Your task to perform on an android device: toggle notifications settings in the gmail app Image 0: 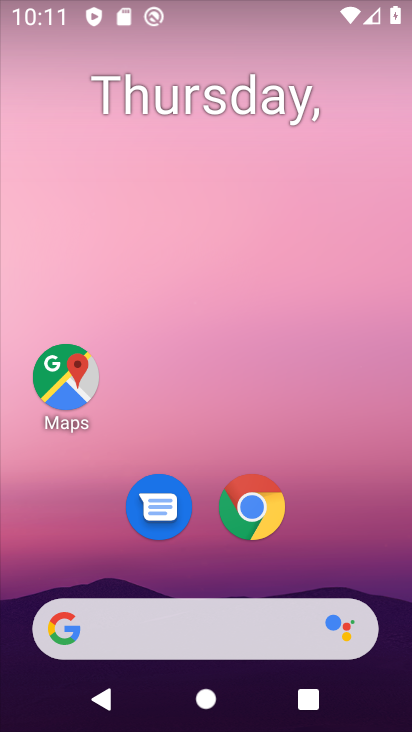
Step 0: drag from (309, 503) to (247, 18)
Your task to perform on an android device: toggle notifications settings in the gmail app Image 1: 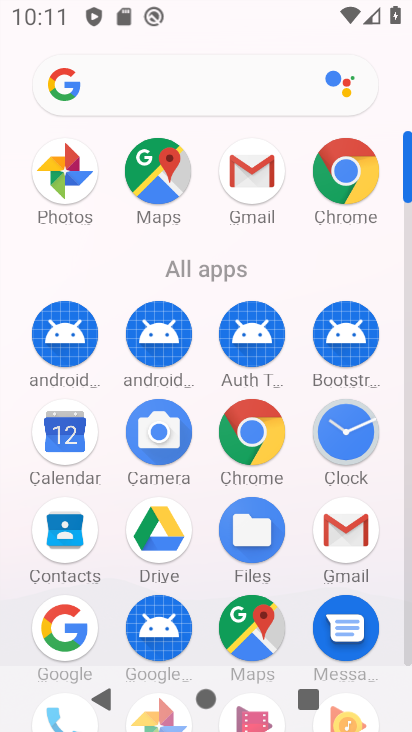
Step 1: click (339, 527)
Your task to perform on an android device: toggle notifications settings in the gmail app Image 2: 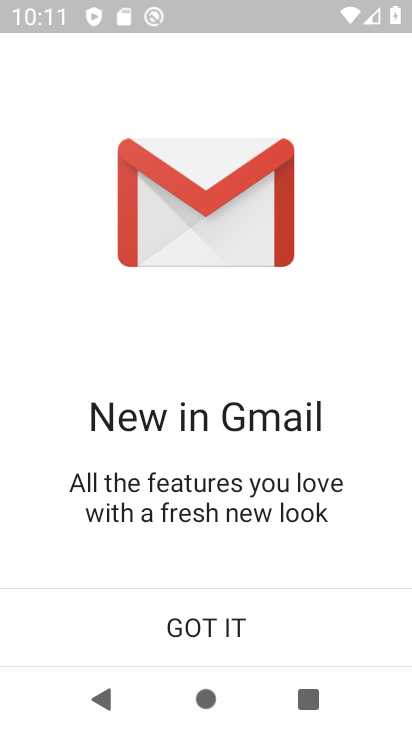
Step 2: click (240, 623)
Your task to perform on an android device: toggle notifications settings in the gmail app Image 3: 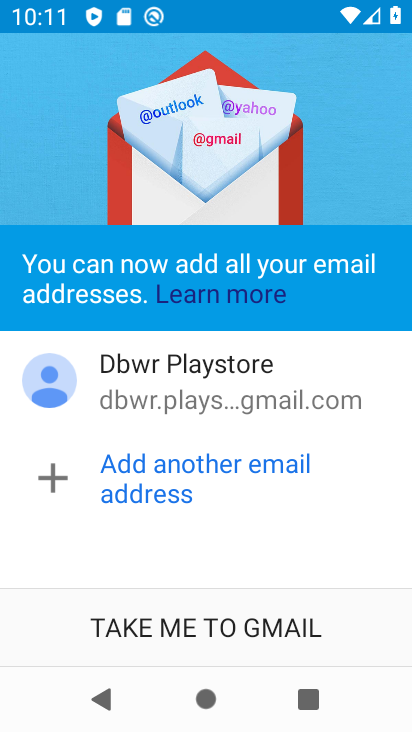
Step 3: click (189, 649)
Your task to perform on an android device: toggle notifications settings in the gmail app Image 4: 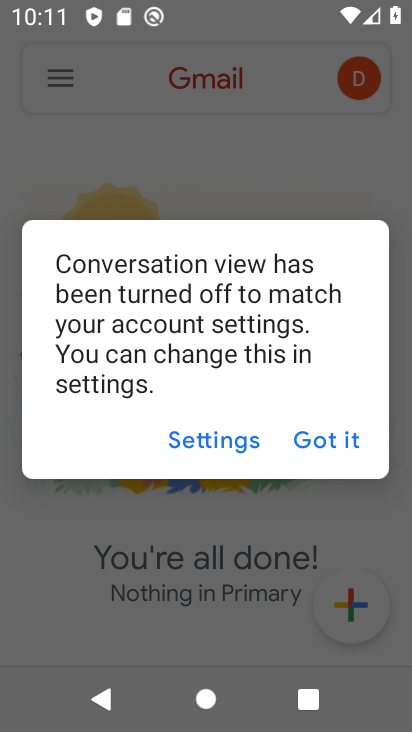
Step 4: click (315, 436)
Your task to perform on an android device: toggle notifications settings in the gmail app Image 5: 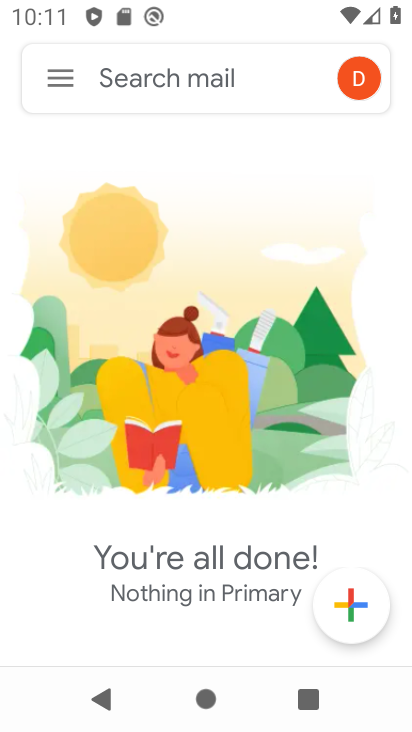
Step 5: click (68, 78)
Your task to perform on an android device: toggle notifications settings in the gmail app Image 6: 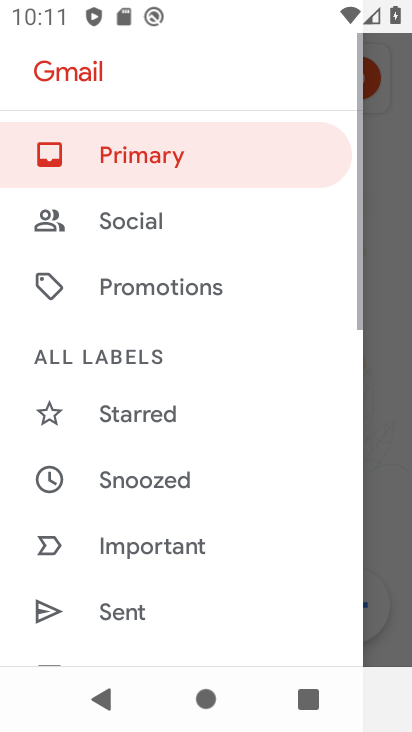
Step 6: drag from (159, 579) to (197, 112)
Your task to perform on an android device: toggle notifications settings in the gmail app Image 7: 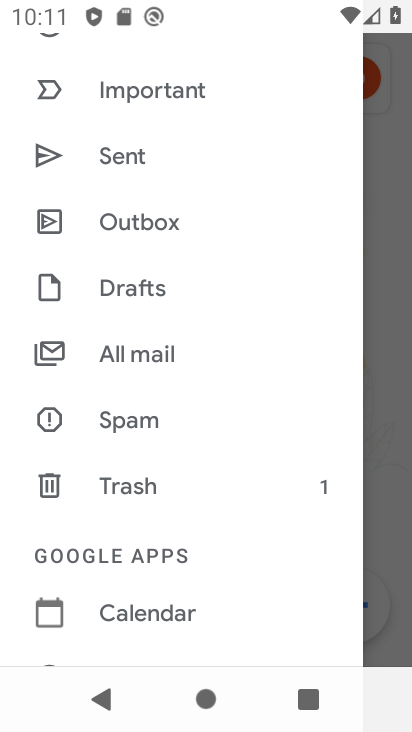
Step 7: drag from (165, 598) to (163, 163)
Your task to perform on an android device: toggle notifications settings in the gmail app Image 8: 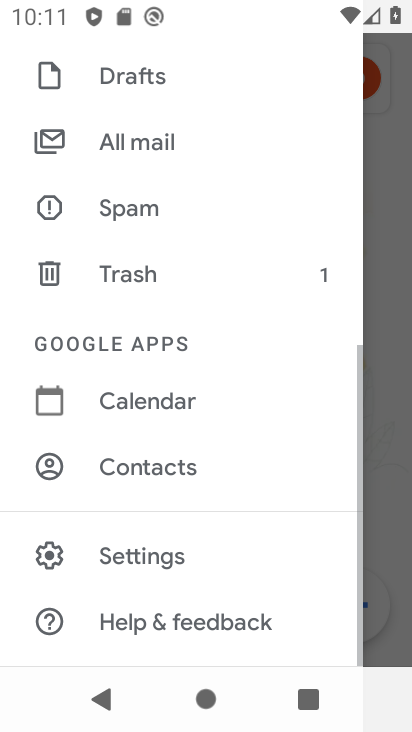
Step 8: click (121, 550)
Your task to perform on an android device: toggle notifications settings in the gmail app Image 9: 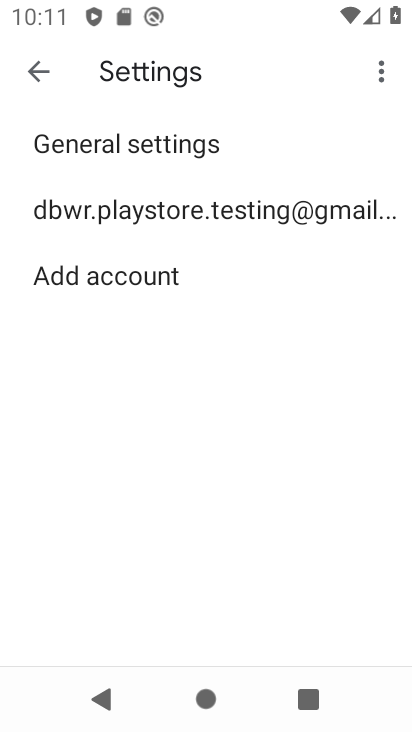
Step 9: click (167, 215)
Your task to perform on an android device: toggle notifications settings in the gmail app Image 10: 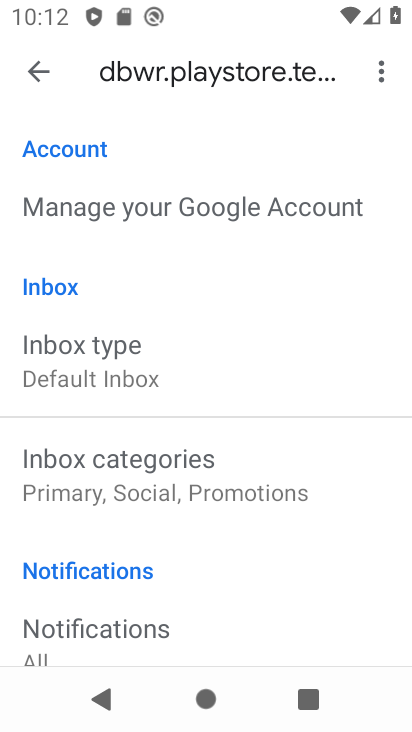
Step 10: drag from (249, 569) to (231, 200)
Your task to perform on an android device: toggle notifications settings in the gmail app Image 11: 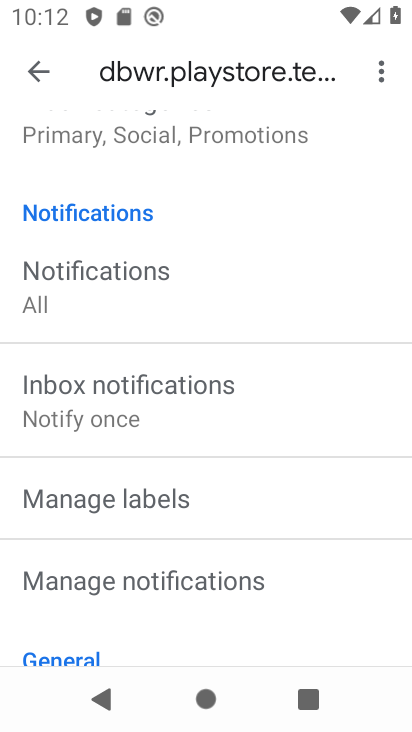
Step 11: click (187, 574)
Your task to perform on an android device: toggle notifications settings in the gmail app Image 12: 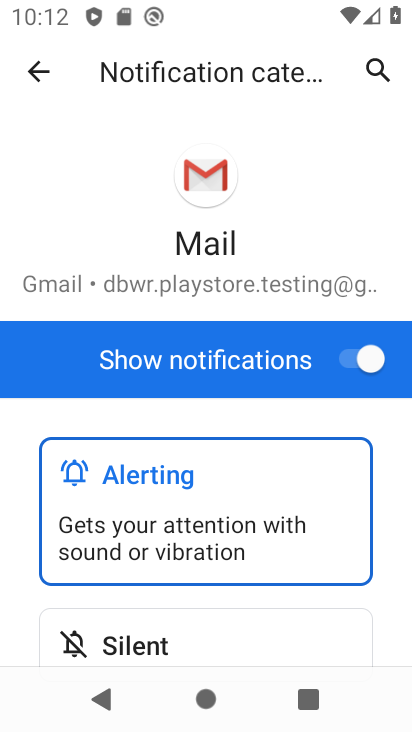
Step 12: click (343, 355)
Your task to perform on an android device: toggle notifications settings in the gmail app Image 13: 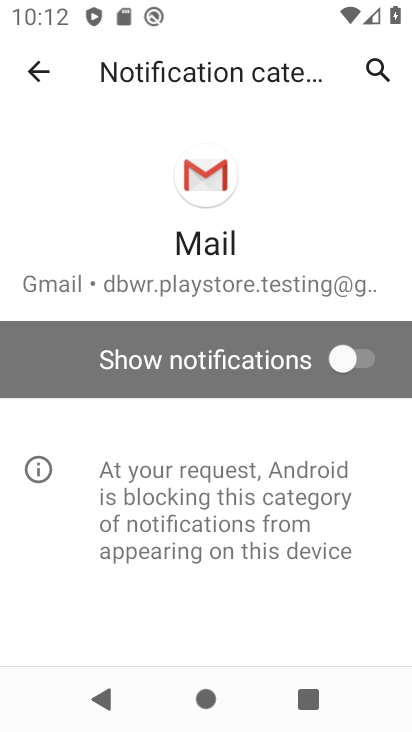
Step 13: task complete